Your task to perform on an android device: Show me the alarms in the clock app Image 0: 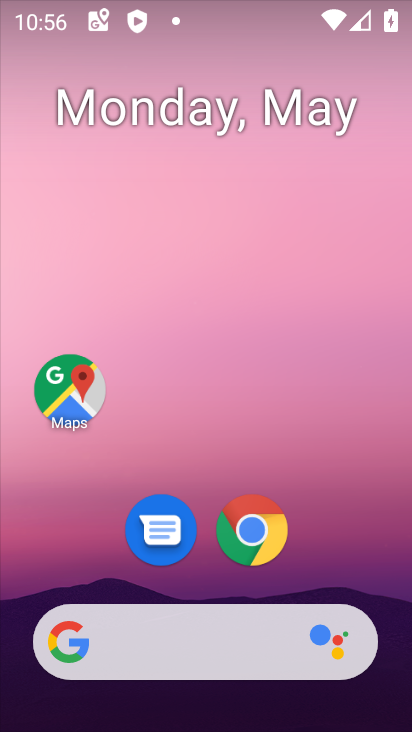
Step 0: drag from (342, 556) to (293, 145)
Your task to perform on an android device: Show me the alarms in the clock app Image 1: 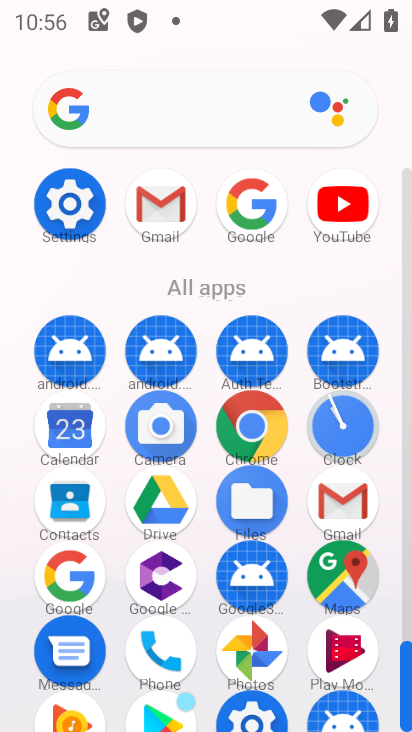
Step 1: click (345, 426)
Your task to perform on an android device: Show me the alarms in the clock app Image 2: 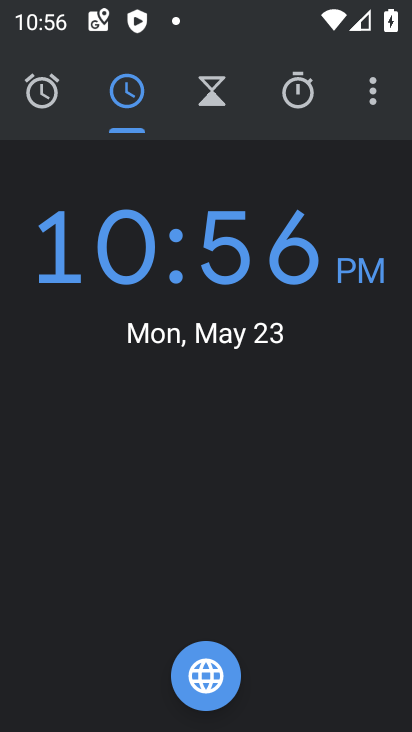
Step 2: click (43, 97)
Your task to perform on an android device: Show me the alarms in the clock app Image 3: 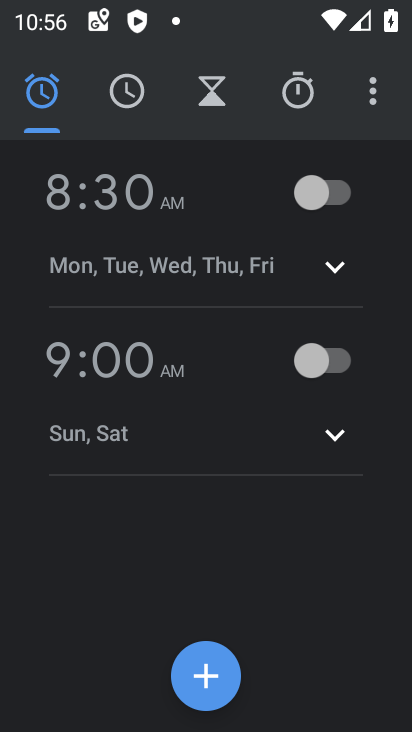
Step 3: task complete